Your task to perform on an android device: toggle javascript in the chrome app Image 0: 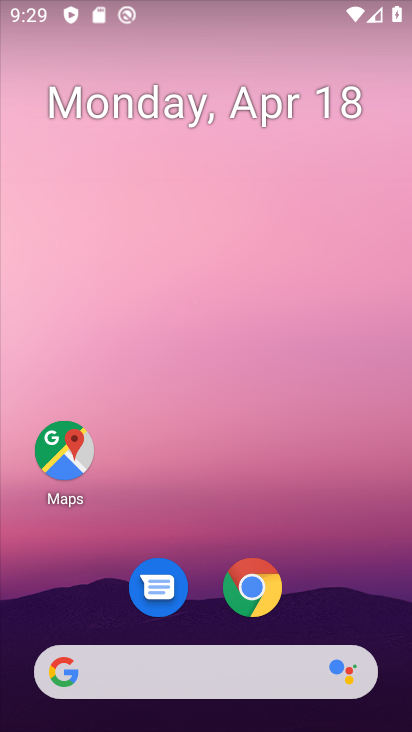
Step 0: click (252, 589)
Your task to perform on an android device: toggle javascript in the chrome app Image 1: 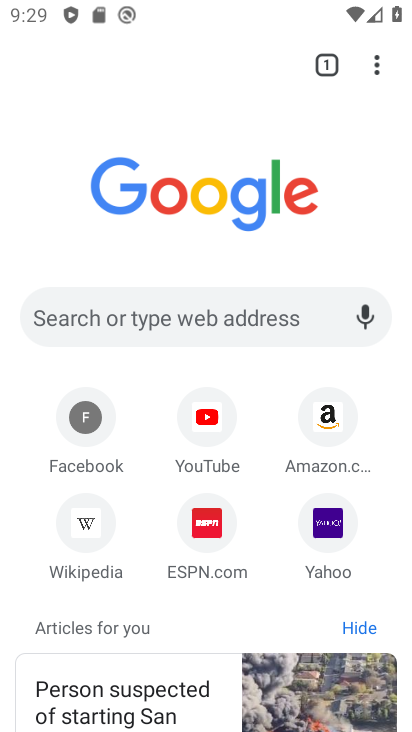
Step 1: click (377, 63)
Your task to perform on an android device: toggle javascript in the chrome app Image 2: 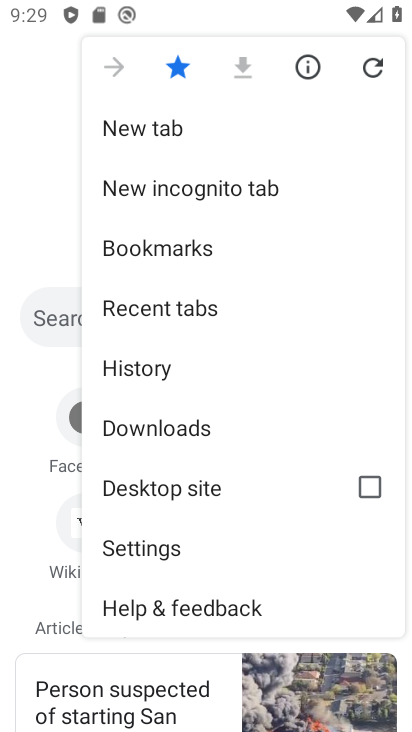
Step 2: click (156, 556)
Your task to perform on an android device: toggle javascript in the chrome app Image 3: 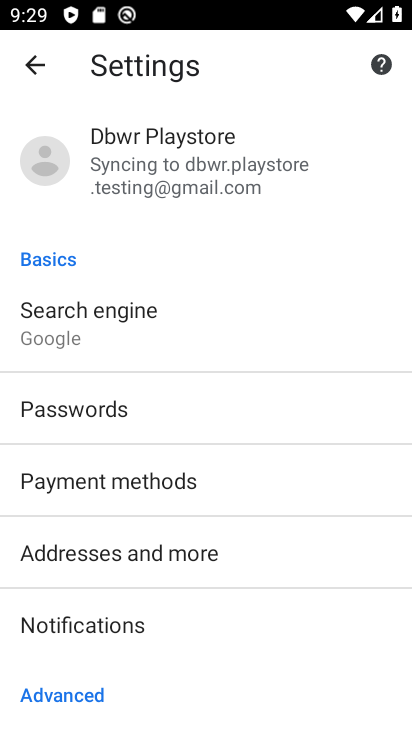
Step 3: drag from (144, 667) to (143, 173)
Your task to perform on an android device: toggle javascript in the chrome app Image 4: 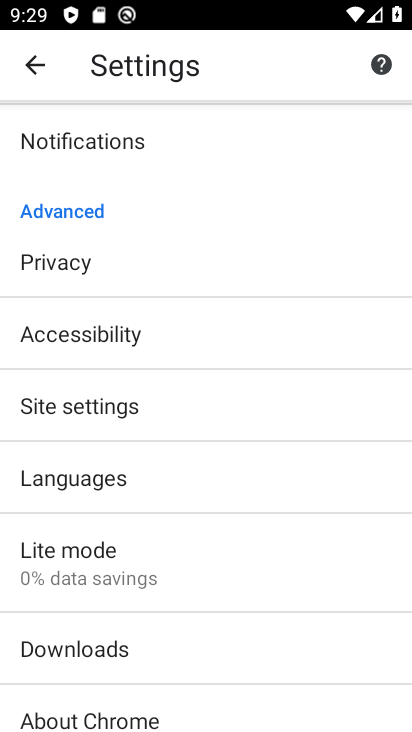
Step 4: click (101, 404)
Your task to perform on an android device: toggle javascript in the chrome app Image 5: 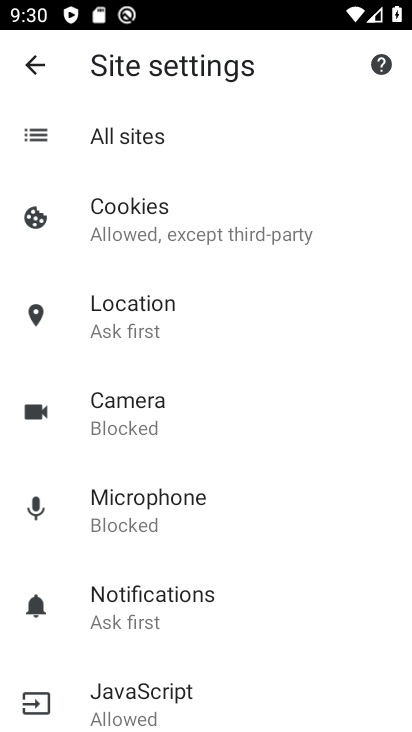
Step 5: click (136, 695)
Your task to perform on an android device: toggle javascript in the chrome app Image 6: 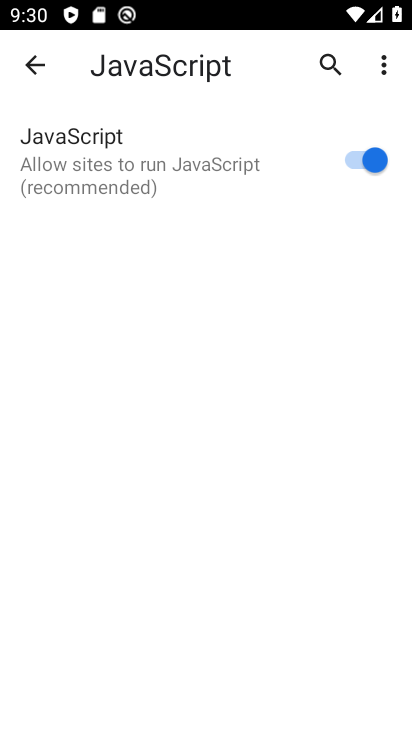
Step 6: click (353, 157)
Your task to perform on an android device: toggle javascript in the chrome app Image 7: 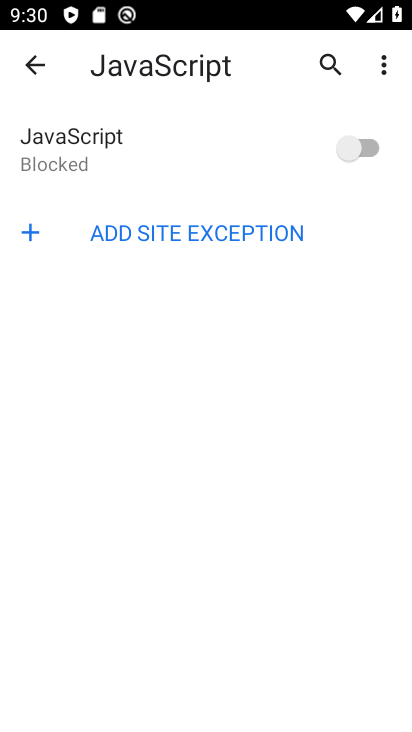
Step 7: task complete